Your task to perform on an android device: empty trash in the gmail app Image 0: 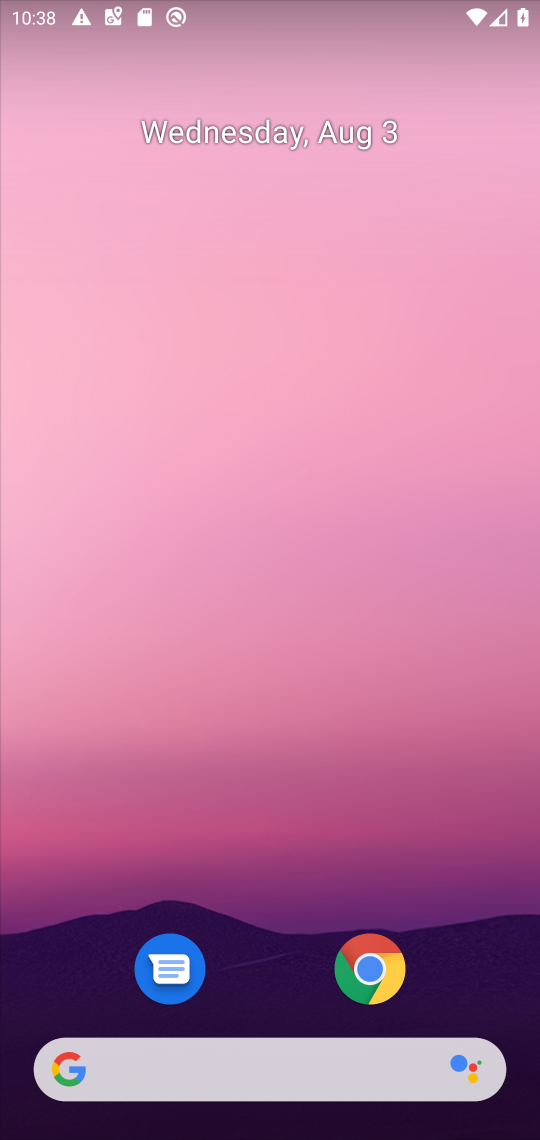
Step 0: drag from (291, 922) to (431, 708)
Your task to perform on an android device: empty trash in the gmail app Image 1: 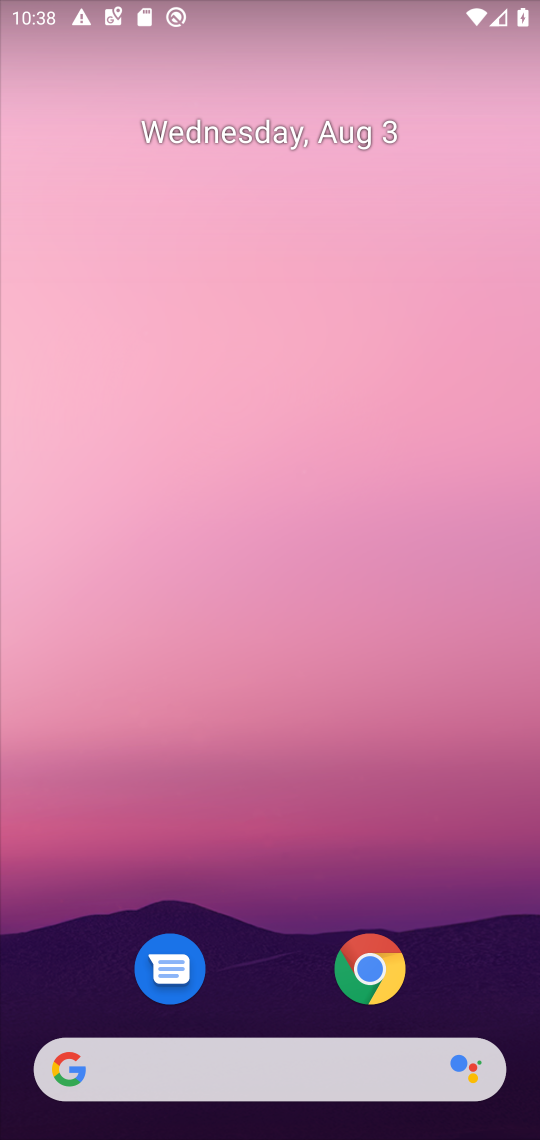
Step 1: drag from (252, 1027) to (141, 92)
Your task to perform on an android device: empty trash in the gmail app Image 2: 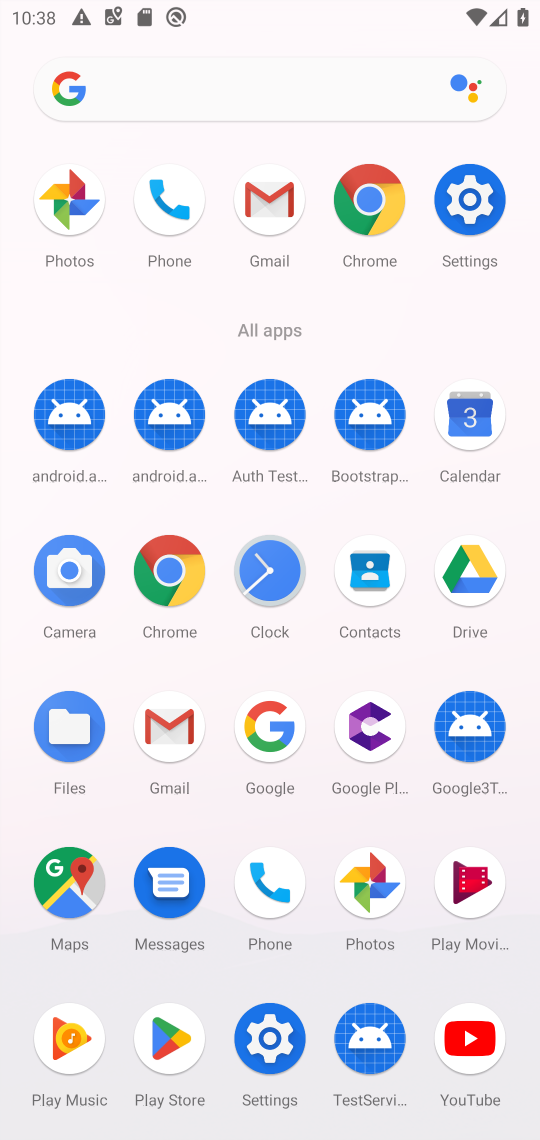
Step 2: click (448, 219)
Your task to perform on an android device: empty trash in the gmail app Image 3: 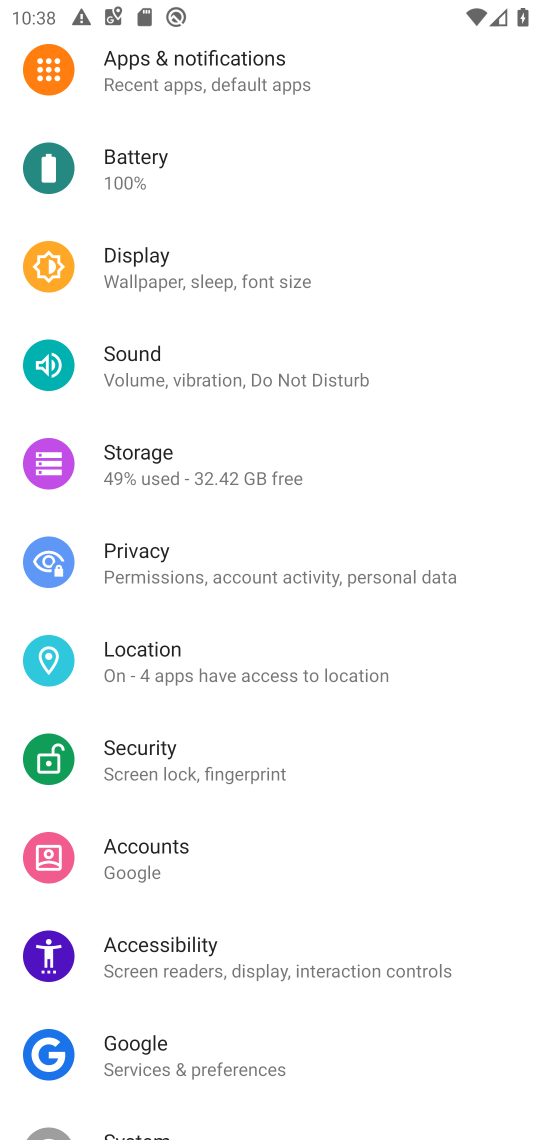
Step 3: press home button
Your task to perform on an android device: empty trash in the gmail app Image 4: 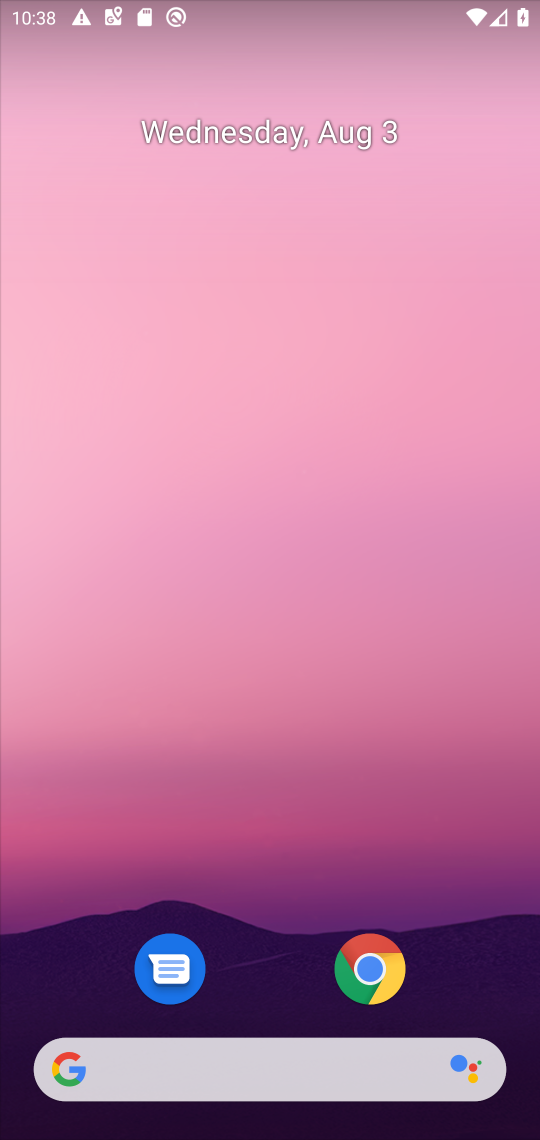
Step 4: drag from (309, 1003) to (400, 58)
Your task to perform on an android device: empty trash in the gmail app Image 5: 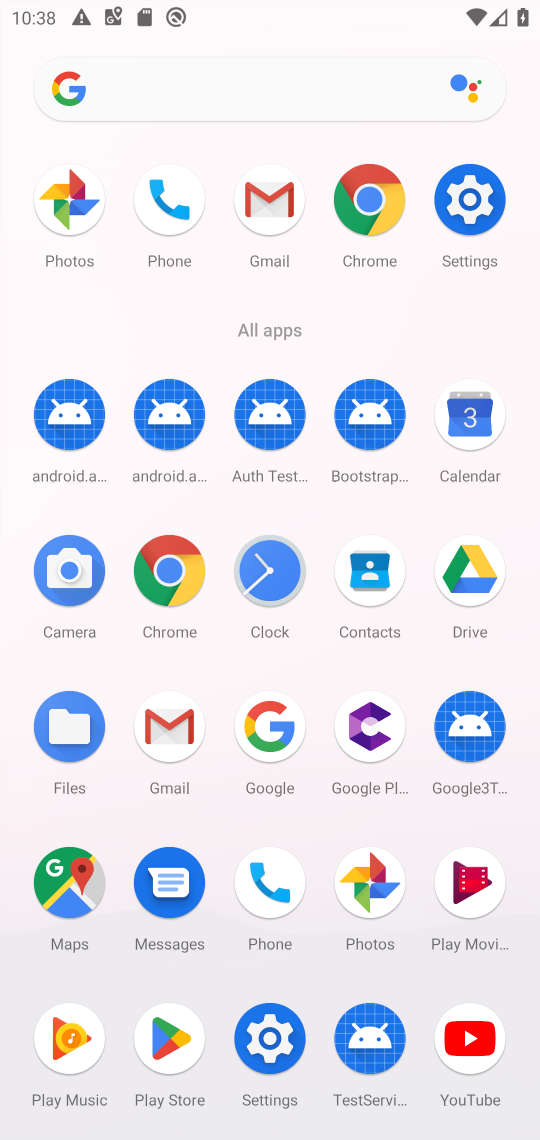
Step 5: click (155, 730)
Your task to perform on an android device: empty trash in the gmail app Image 6: 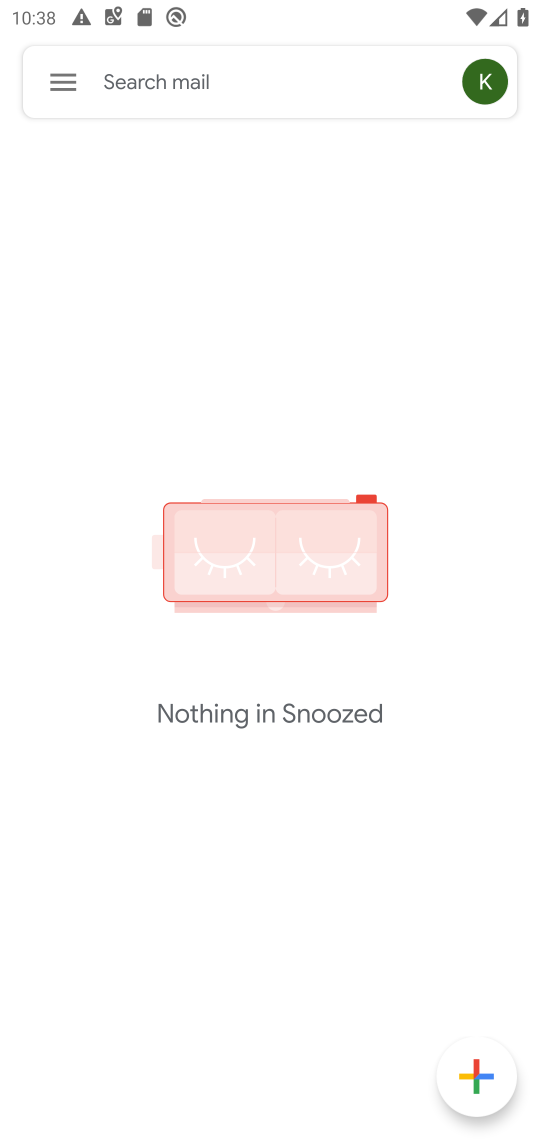
Step 6: click (32, 70)
Your task to perform on an android device: empty trash in the gmail app Image 7: 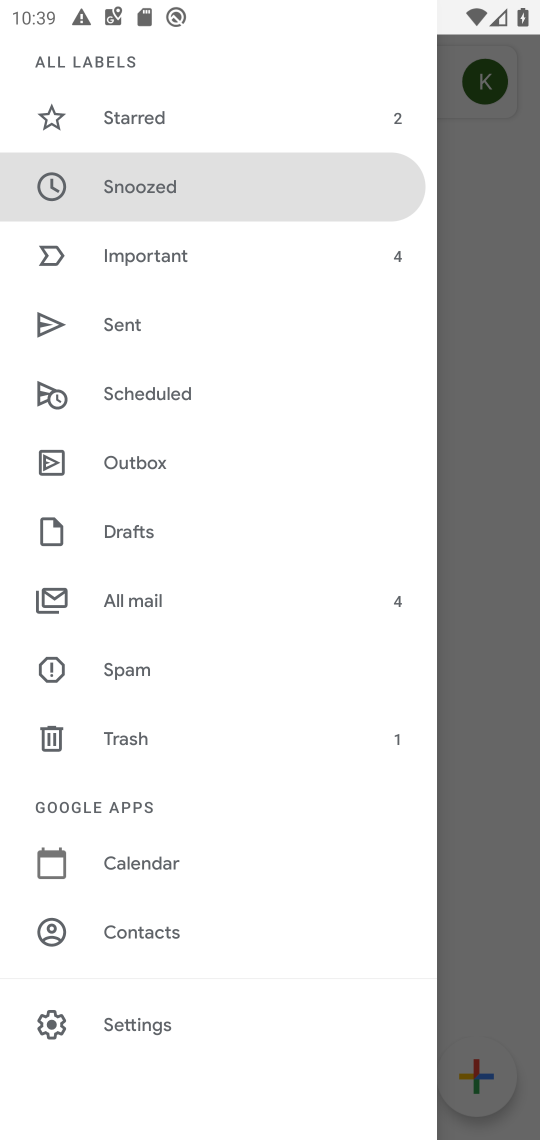
Step 7: click (146, 735)
Your task to perform on an android device: empty trash in the gmail app Image 8: 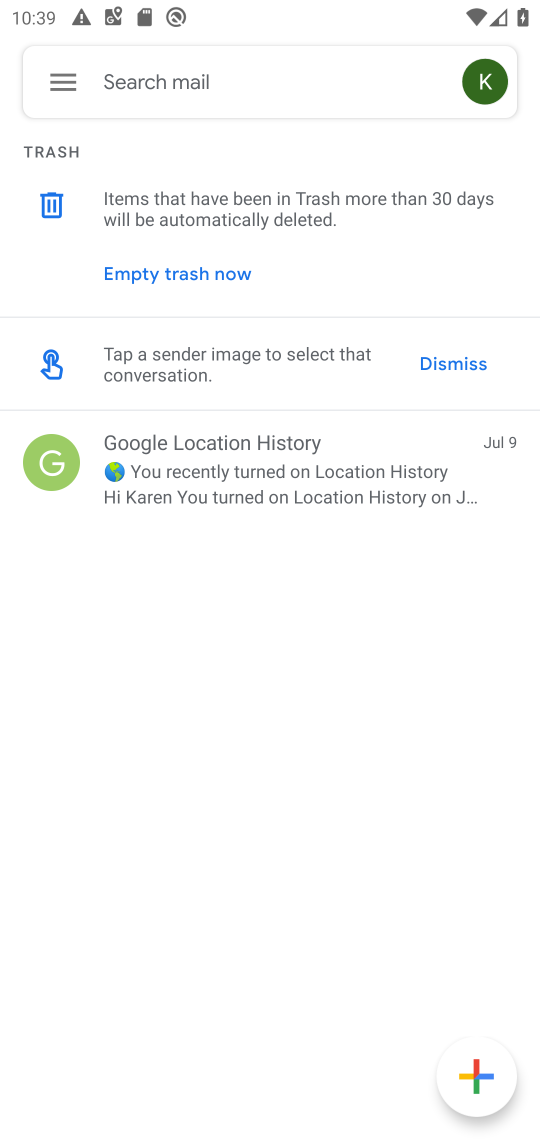
Step 8: click (160, 264)
Your task to perform on an android device: empty trash in the gmail app Image 9: 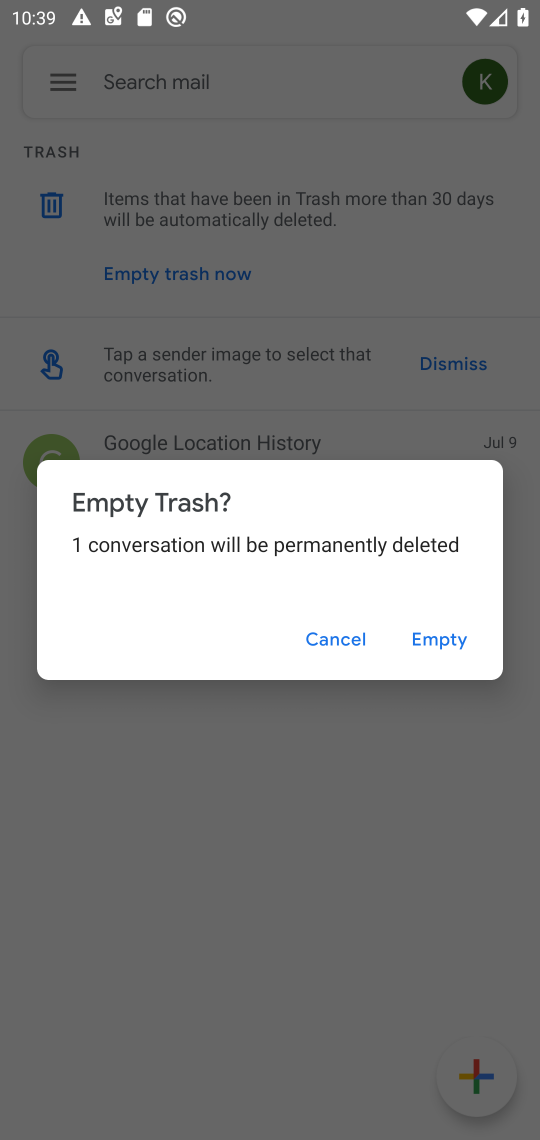
Step 9: click (420, 629)
Your task to perform on an android device: empty trash in the gmail app Image 10: 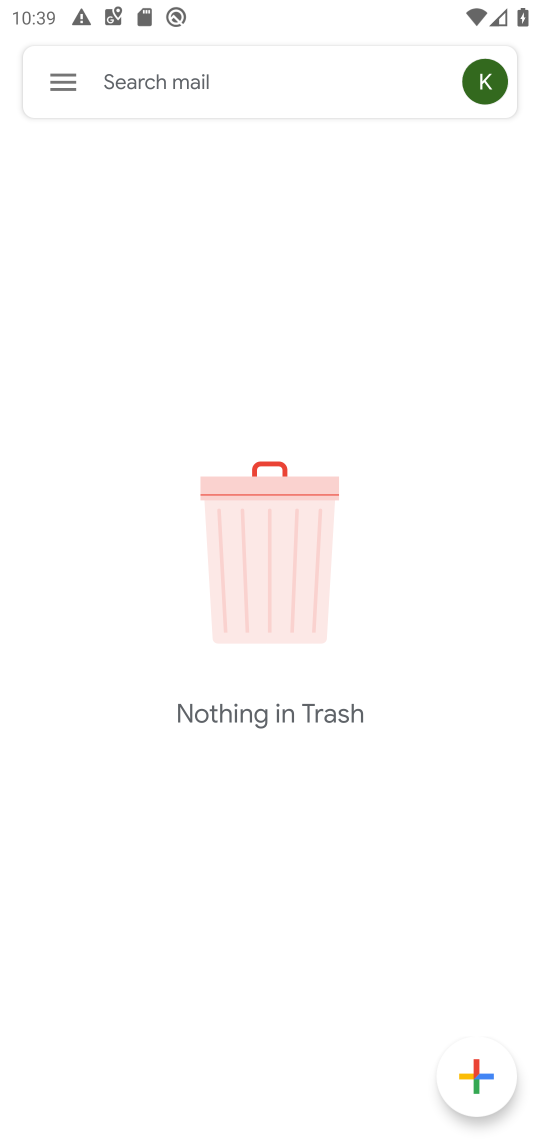
Step 10: task complete